Your task to perform on an android device: change keyboard looks Image 0: 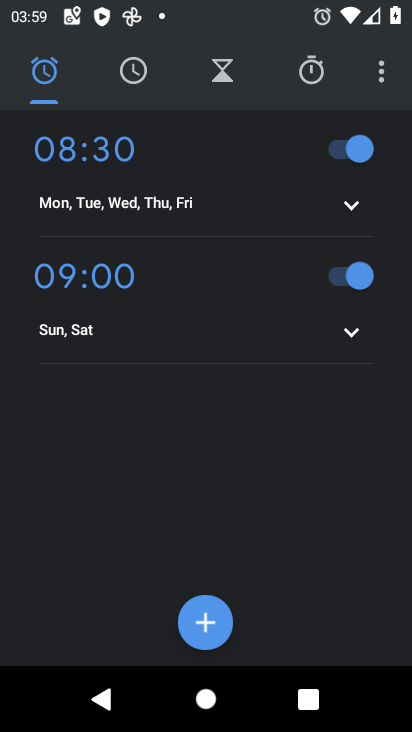
Step 0: press home button
Your task to perform on an android device: change keyboard looks Image 1: 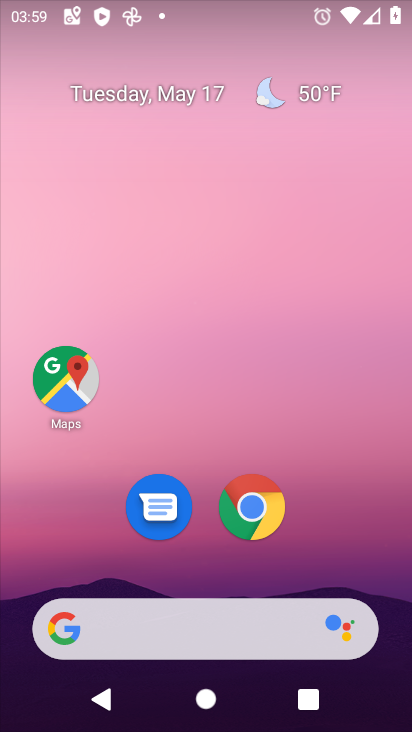
Step 1: drag from (333, 560) to (306, 141)
Your task to perform on an android device: change keyboard looks Image 2: 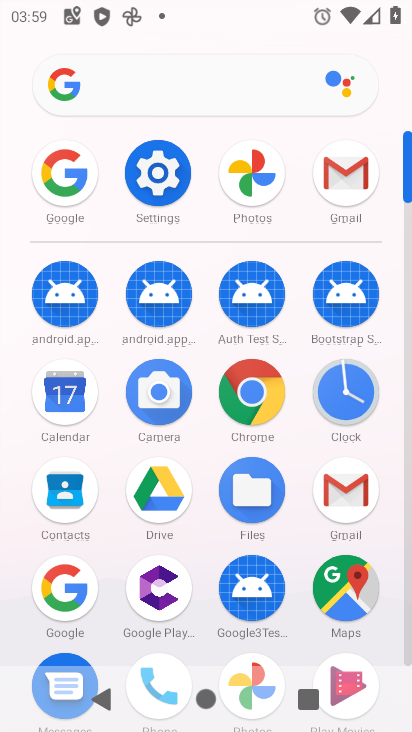
Step 2: click (157, 192)
Your task to perform on an android device: change keyboard looks Image 3: 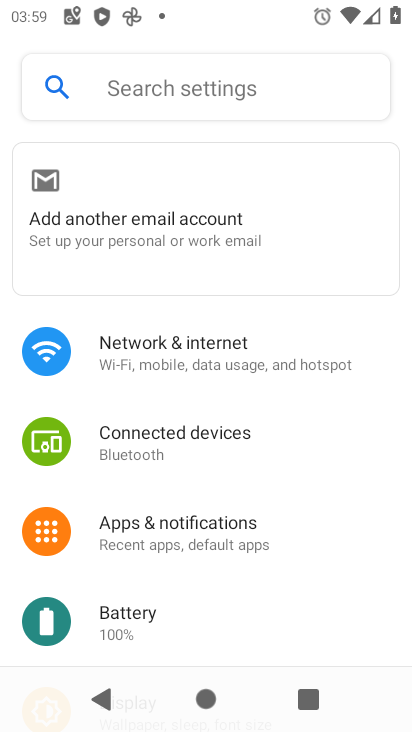
Step 3: drag from (236, 574) to (244, 161)
Your task to perform on an android device: change keyboard looks Image 4: 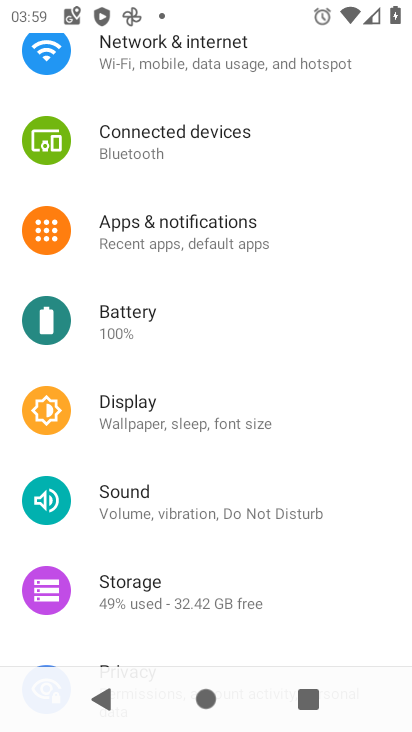
Step 4: drag from (218, 553) to (249, 106)
Your task to perform on an android device: change keyboard looks Image 5: 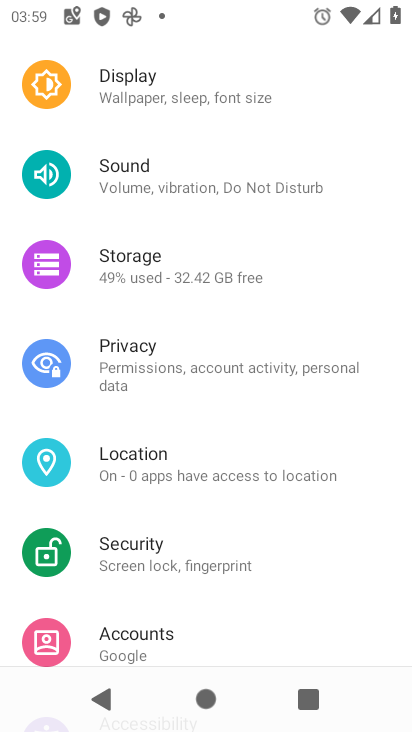
Step 5: drag from (210, 612) to (233, 122)
Your task to perform on an android device: change keyboard looks Image 6: 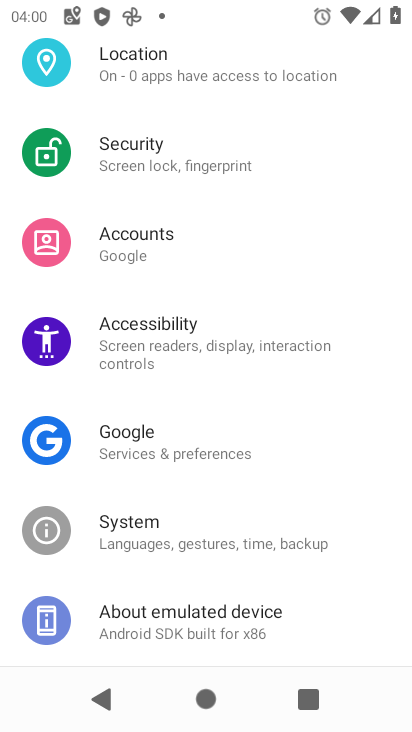
Step 6: click (219, 534)
Your task to perform on an android device: change keyboard looks Image 7: 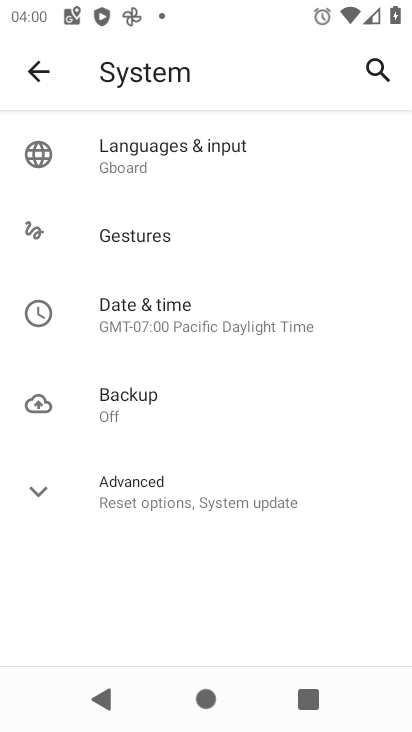
Step 7: click (224, 156)
Your task to perform on an android device: change keyboard looks Image 8: 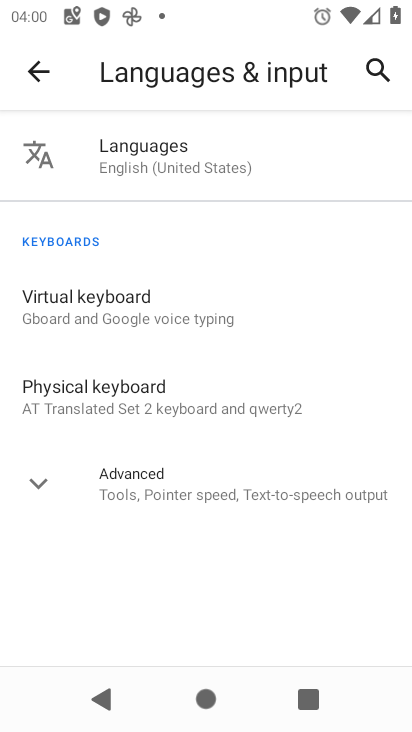
Step 8: click (145, 307)
Your task to perform on an android device: change keyboard looks Image 9: 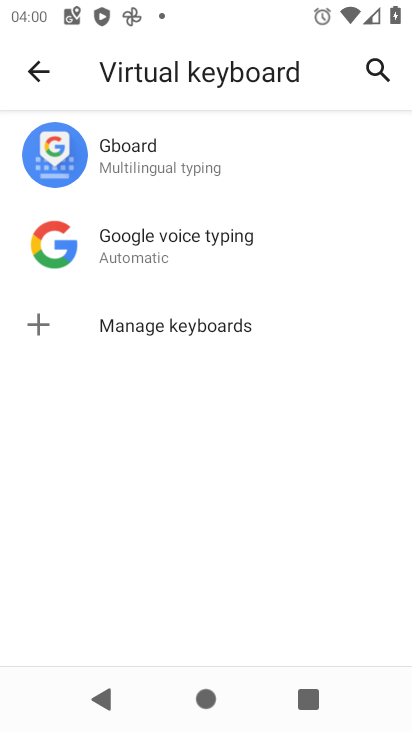
Step 9: click (191, 161)
Your task to perform on an android device: change keyboard looks Image 10: 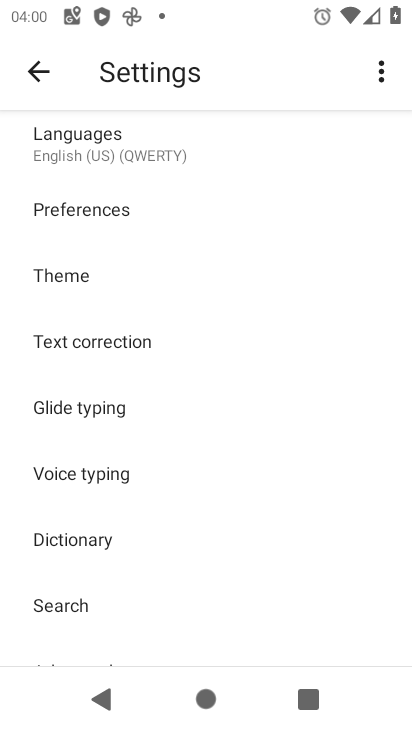
Step 10: click (110, 271)
Your task to perform on an android device: change keyboard looks Image 11: 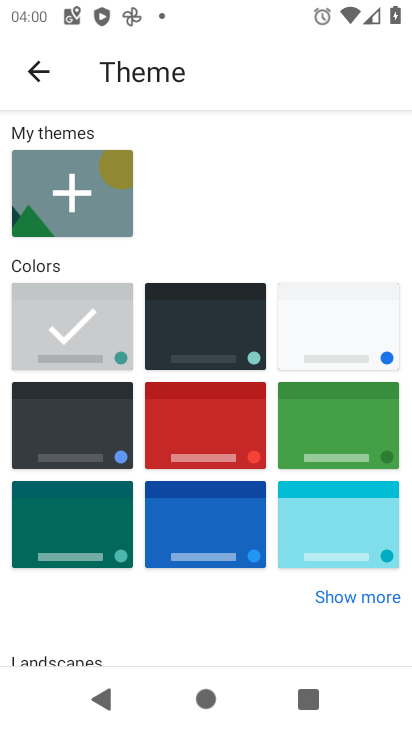
Step 11: click (207, 446)
Your task to perform on an android device: change keyboard looks Image 12: 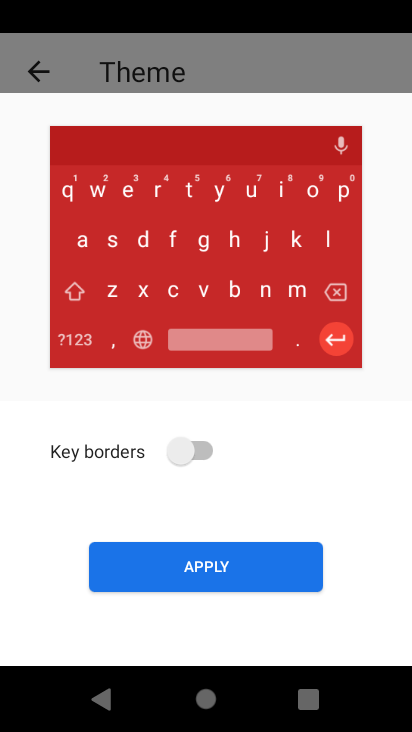
Step 12: click (239, 562)
Your task to perform on an android device: change keyboard looks Image 13: 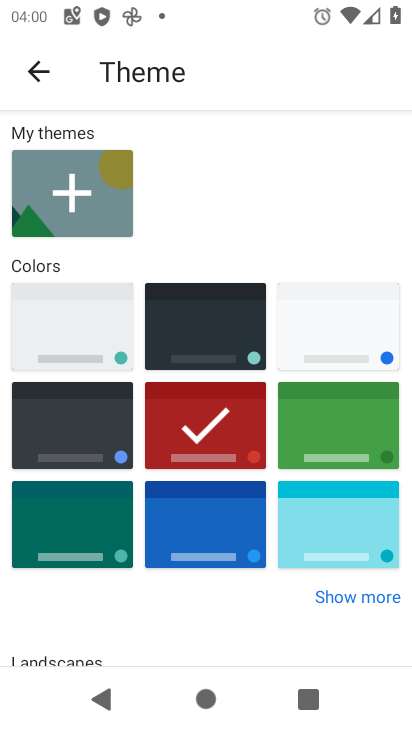
Step 13: task complete